Your task to perform on an android device: turn off notifications settings in the gmail app Image 0: 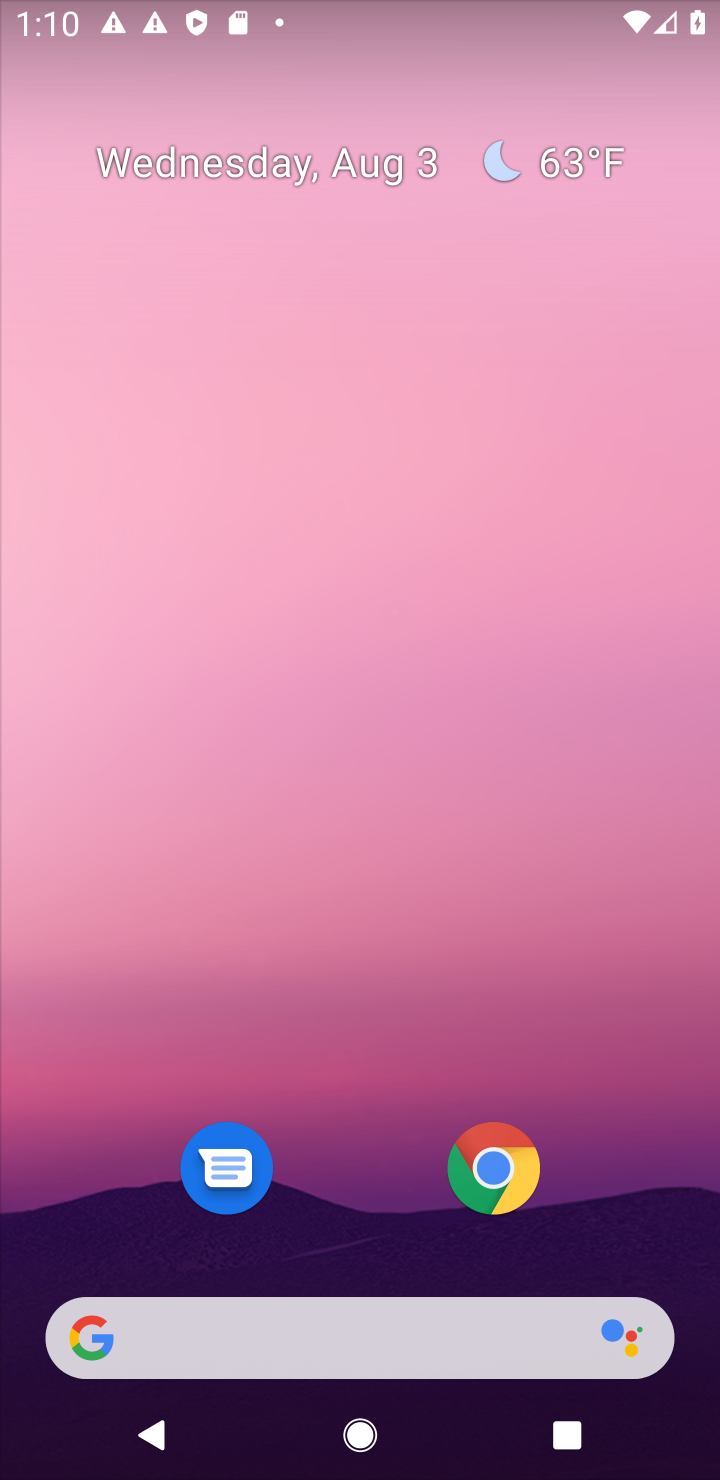
Step 0: drag from (661, 1107) to (636, 350)
Your task to perform on an android device: turn off notifications settings in the gmail app Image 1: 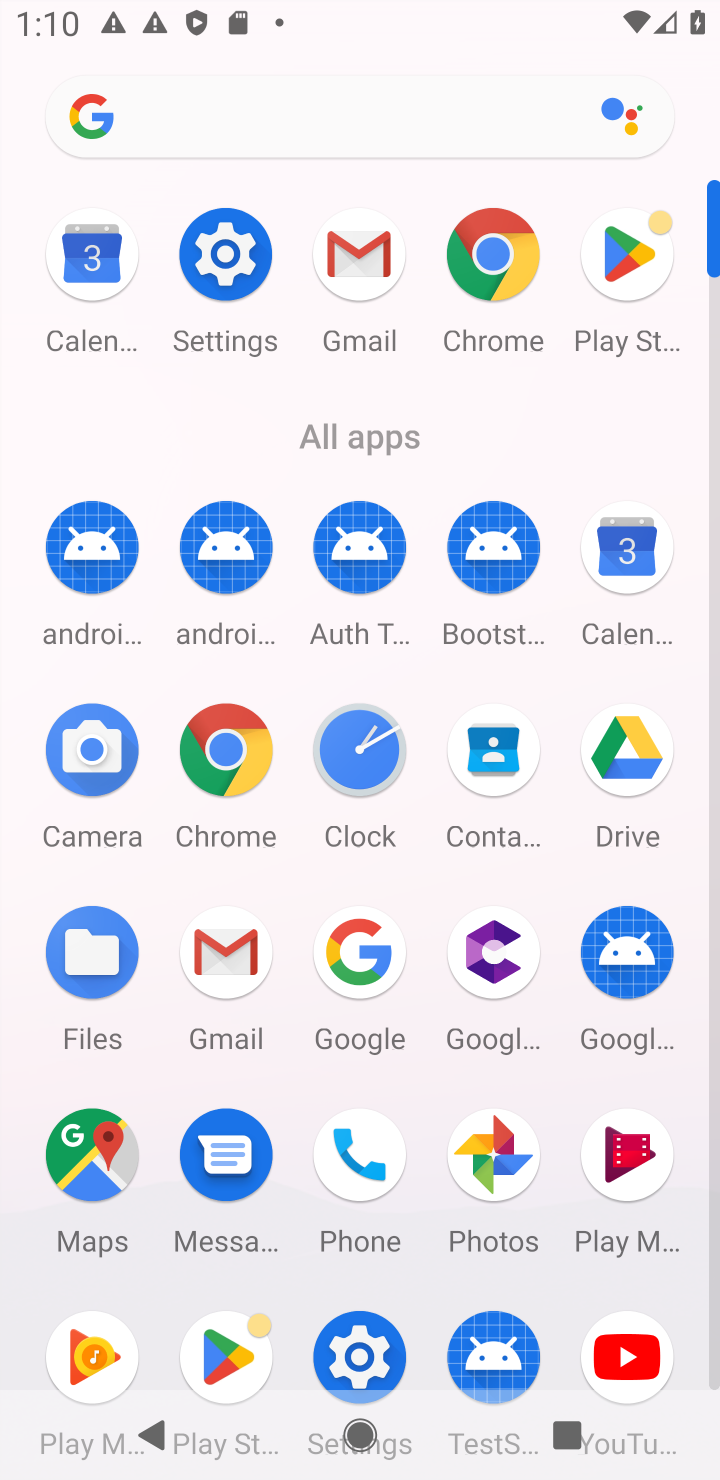
Step 1: click (212, 943)
Your task to perform on an android device: turn off notifications settings in the gmail app Image 2: 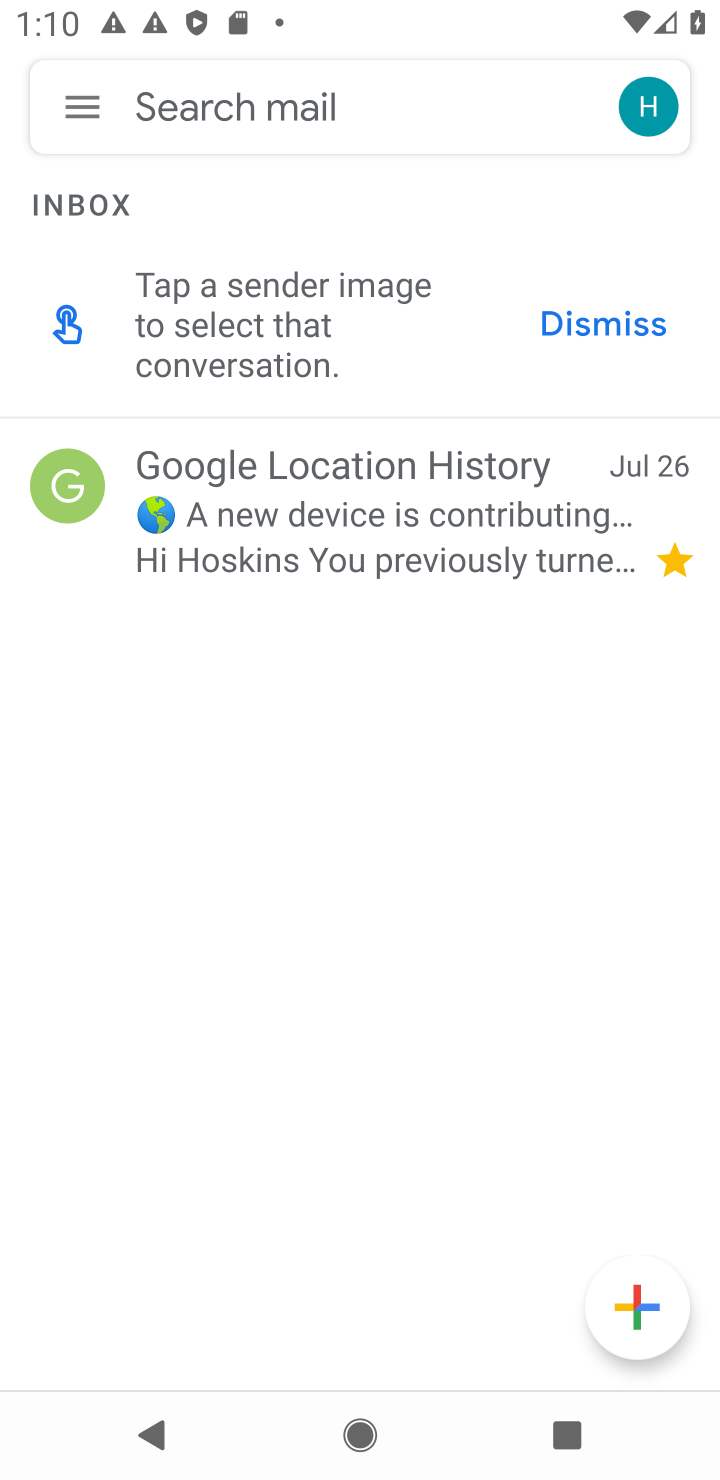
Step 2: click (73, 106)
Your task to perform on an android device: turn off notifications settings in the gmail app Image 3: 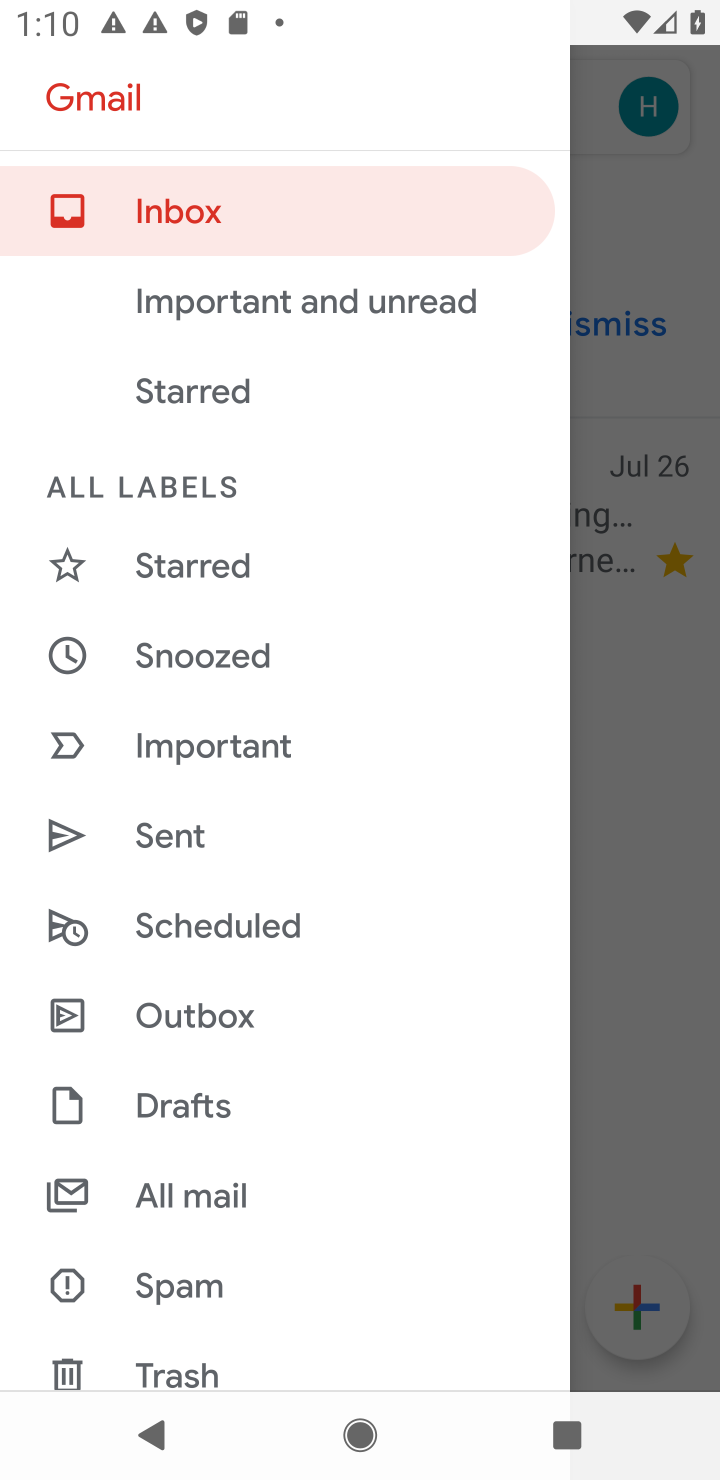
Step 3: drag from (286, 1345) to (338, 805)
Your task to perform on an android device: turn off notifications settings in the gmail app Image 4: 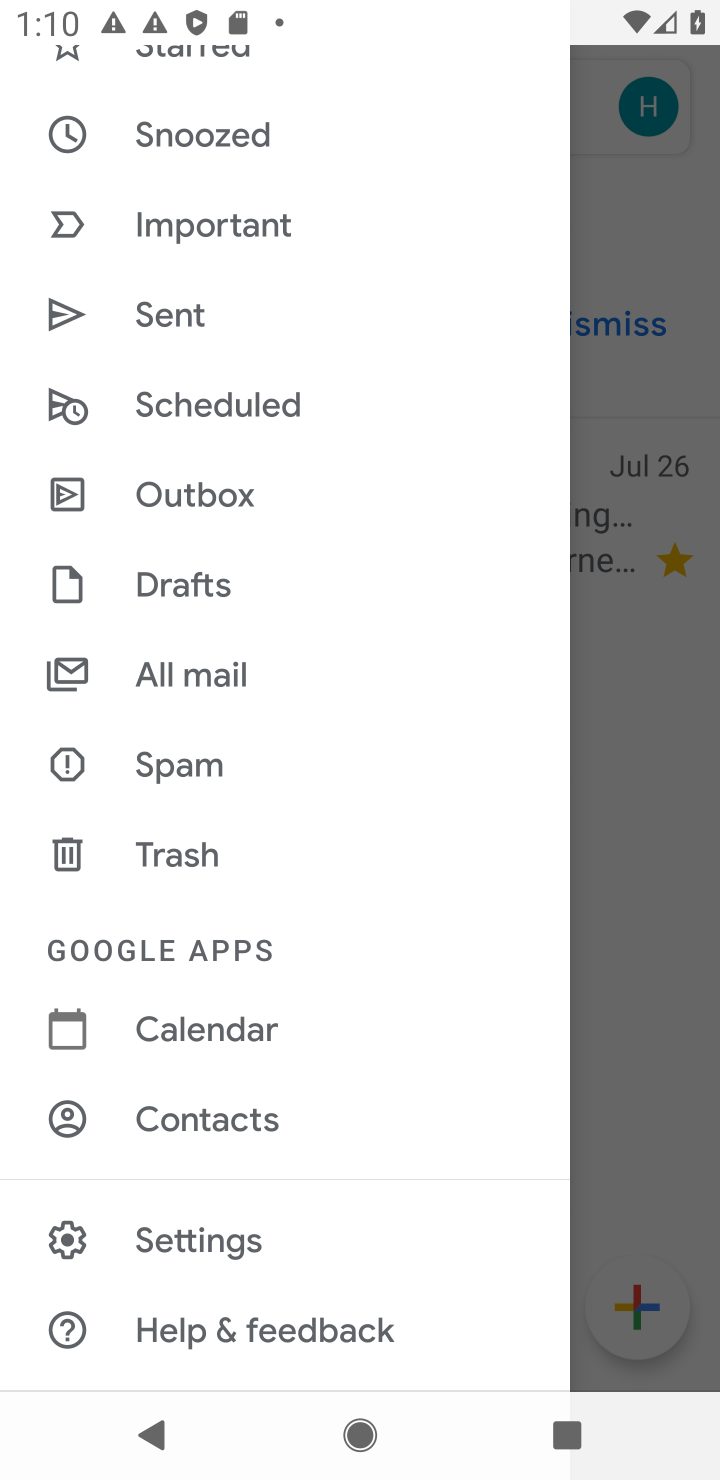
Step 4: click (179, 1221)
Your task to perform on an android device: turn off notifications settings in the gmail app Image 5: 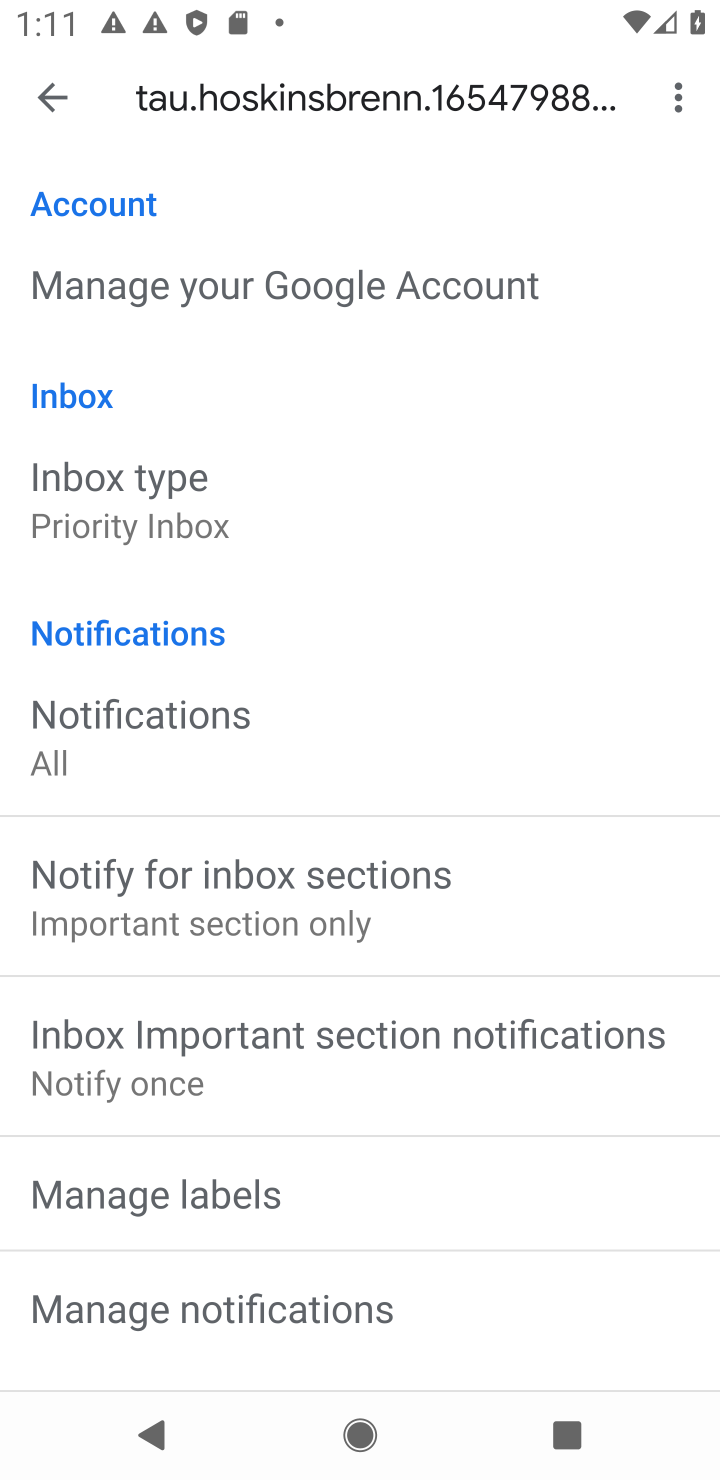
Step 5: drag from (435, 1257) to (495, 581)
Your task to perform on an android device: turn off notifications settings in the gmail app Image 6: 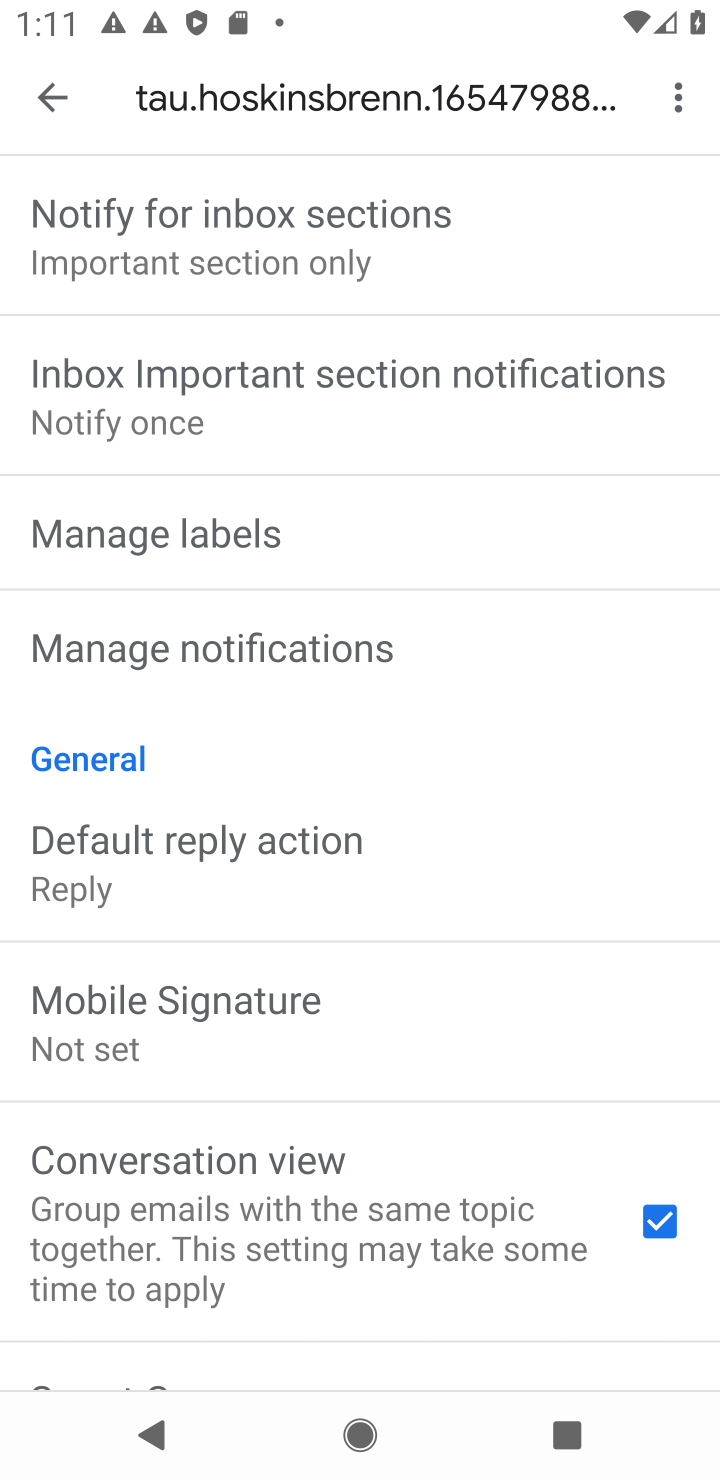
Step 6: click (211, 644)
Your task to perform on an android device: turn off notifications settings in the gmail app Image 7: 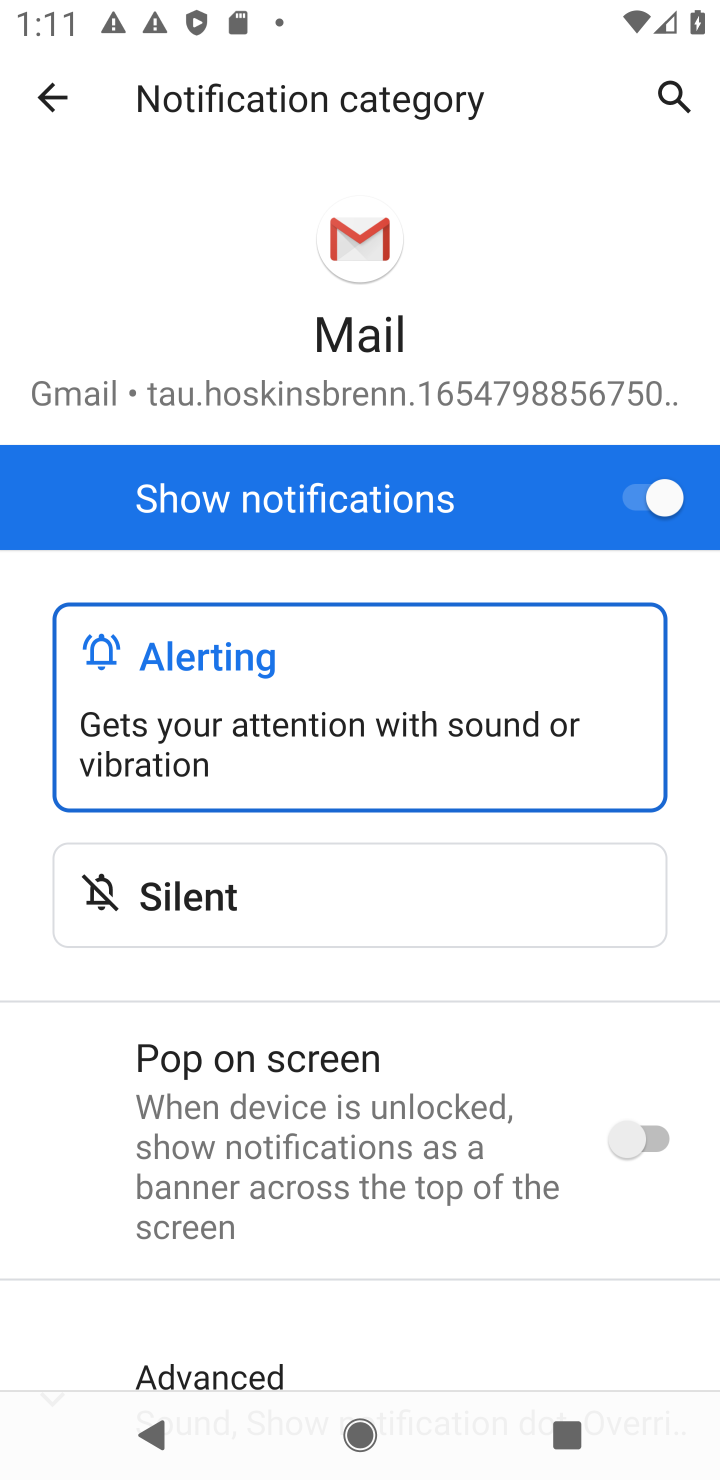
Step 7: click (632, 496)
Your task to perform on an android device: turn off notifications settings in the gmail app Image 8: 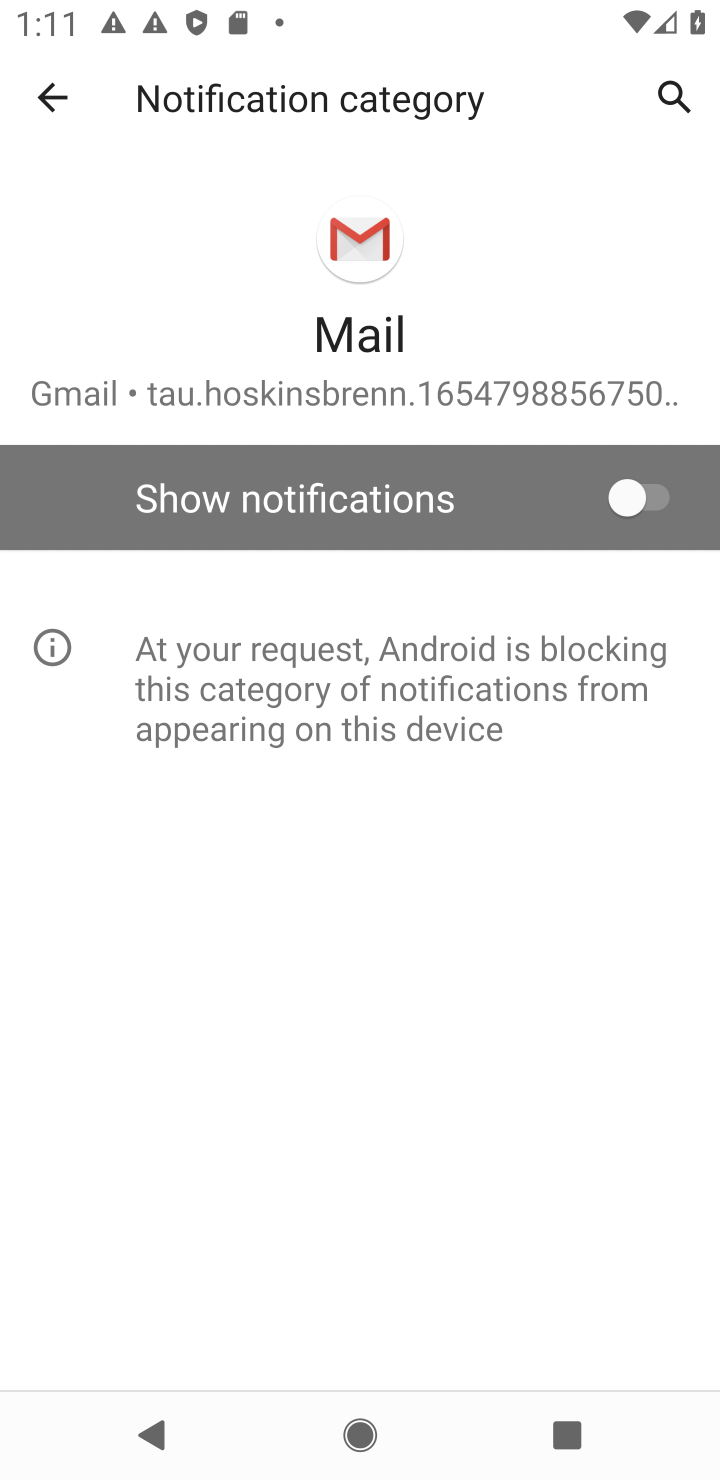
Step 8: task complete